Your task to perform on an android device: Open Maps and search for coffee Image 0: 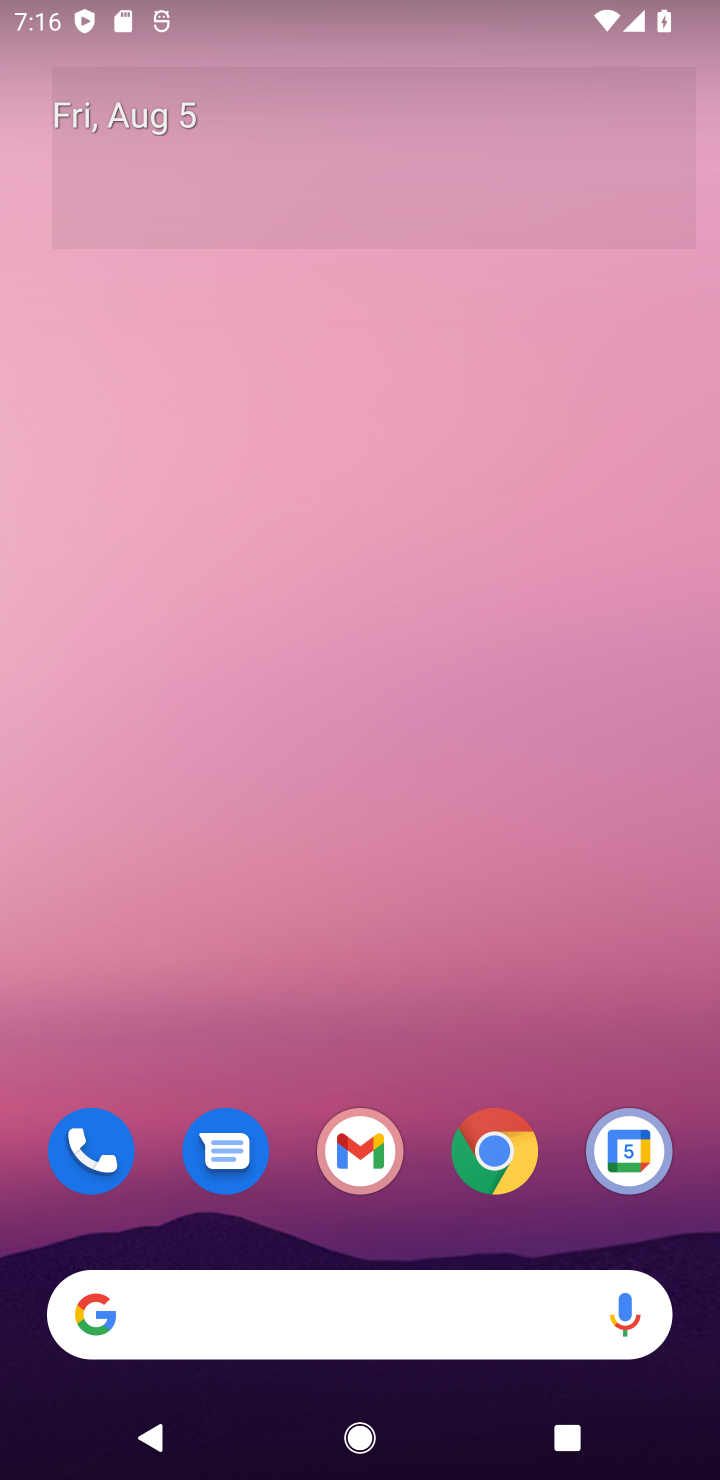
Step 0: drag from (389, 1254) to (312, 44)
Your task to perform on an android device: Open Maps and search for coffee Image 1: 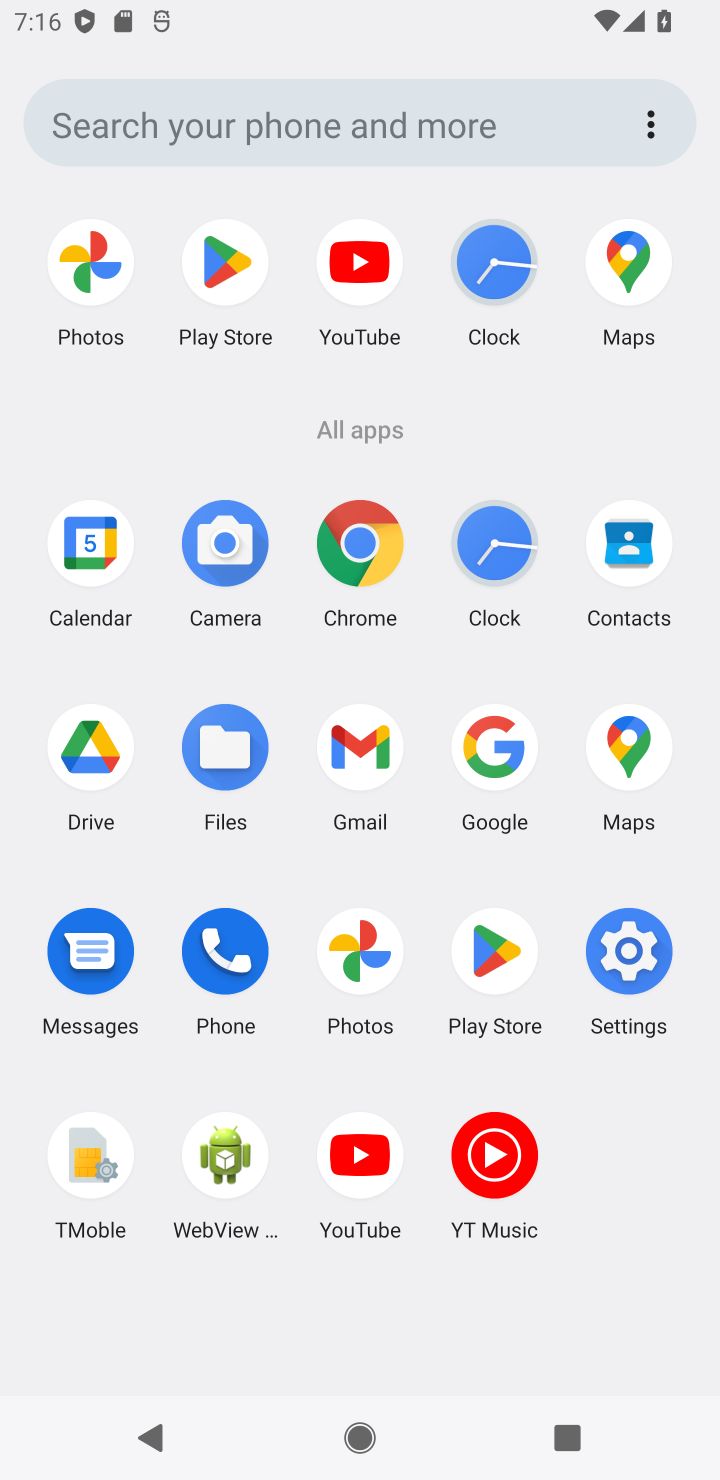
Step 1: click (625, 746)
Your task to perform on an android device: Open Maps and search for coffee Image 2: 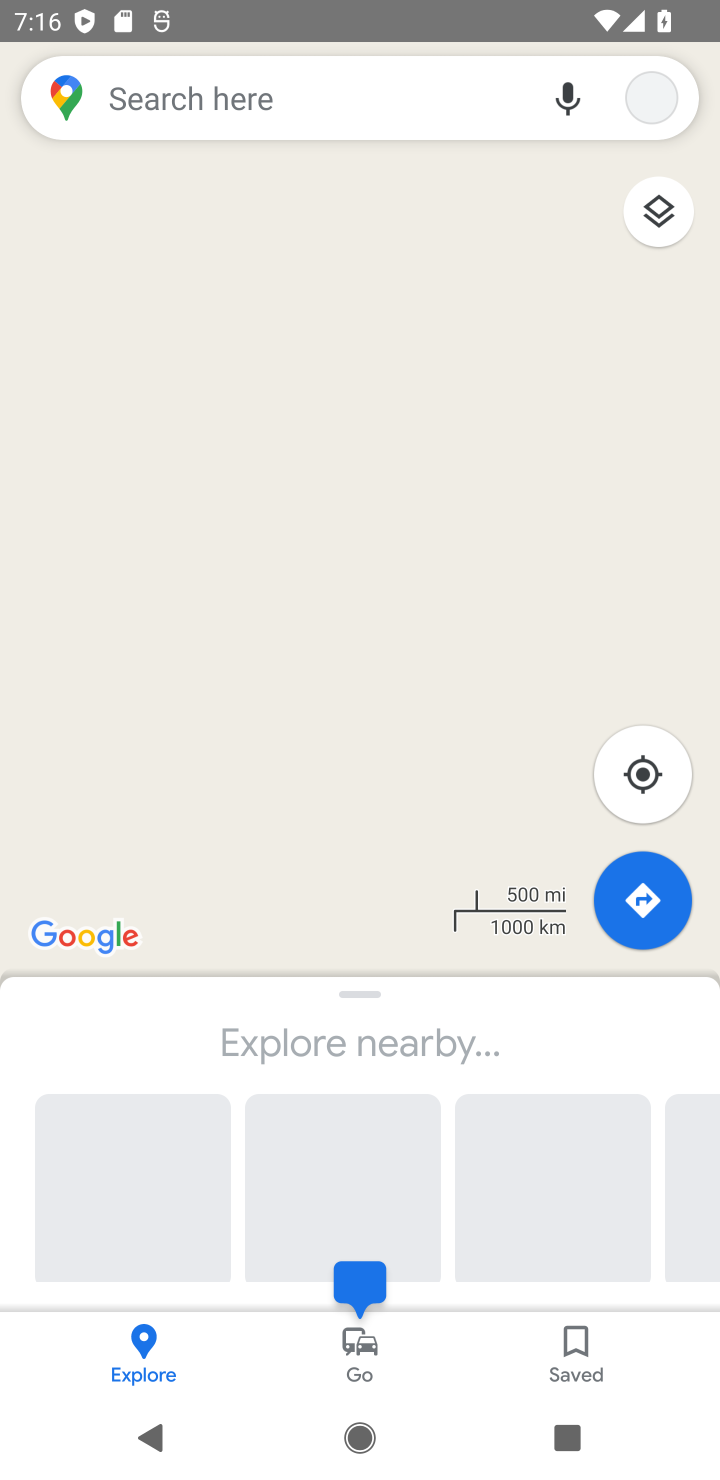
Step 2: click (311, 106)
Your task to perform on an android device: Open Maps and search for coffee Image 3: 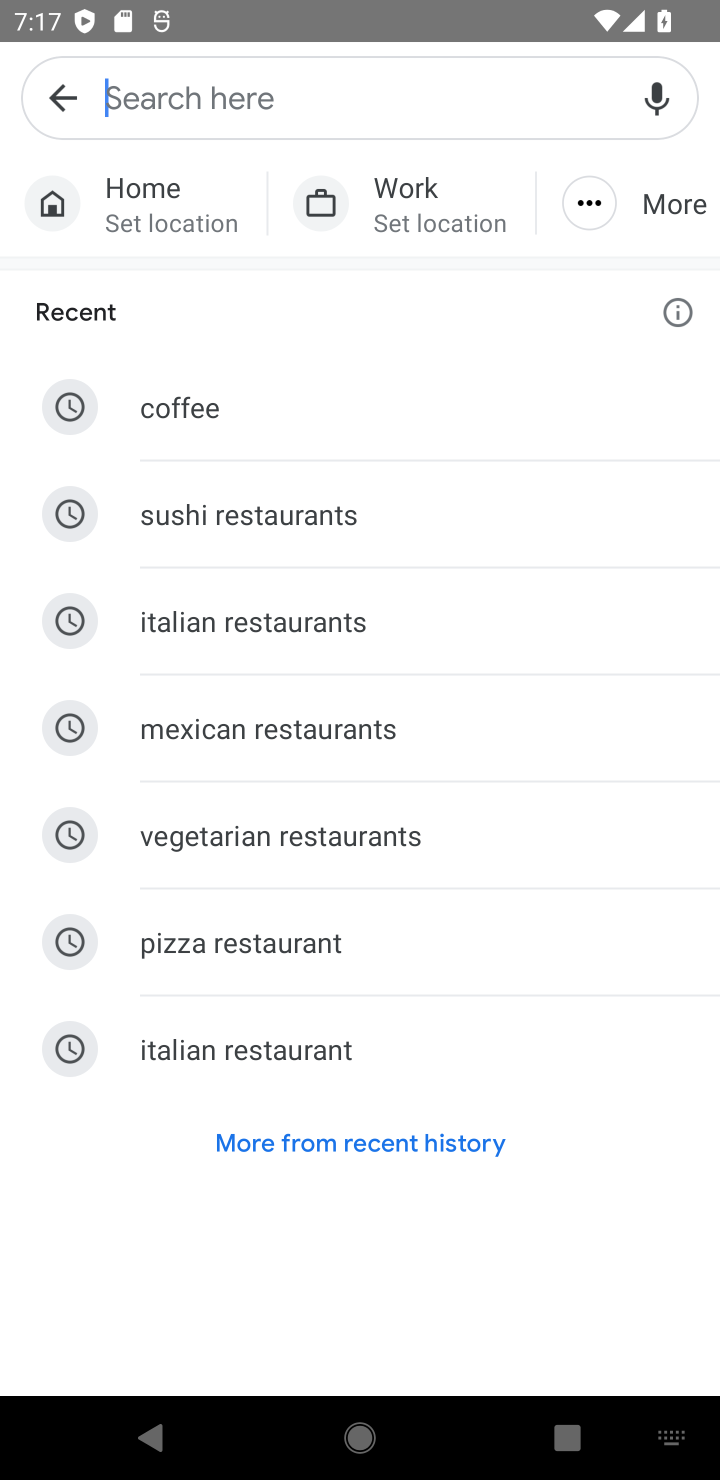
Step 3: click (187, 402)
Your task to perform on an android device: Open Maps and search for coffee Image 4: 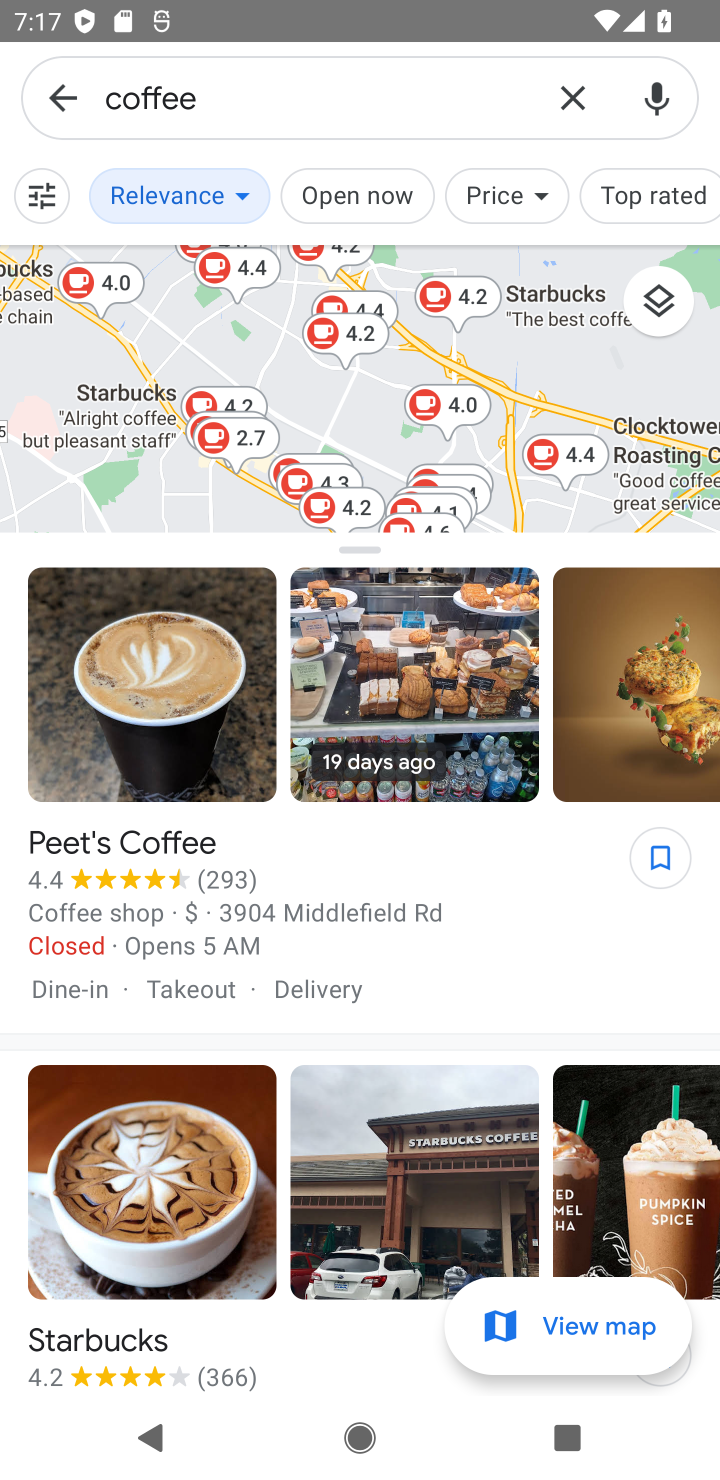
Step 4: task complete